Your task to perform on an android device: What is the recent news? Image 0: 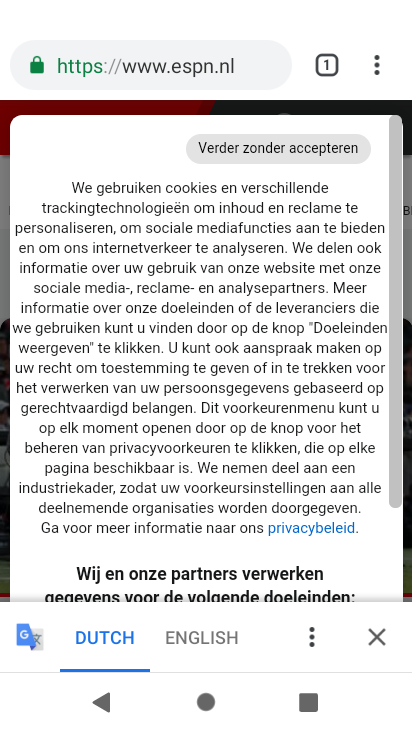
Step 0: drag from (158, 639) to (244, 147)
Your task to perform on an android device: What is the recent news? Image 1: 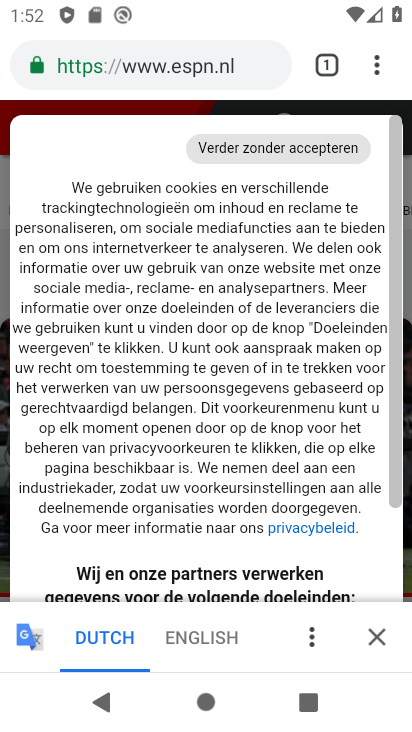
Step 1: press home button
Your task to perform on an android device: What is the recent news? Image 2: 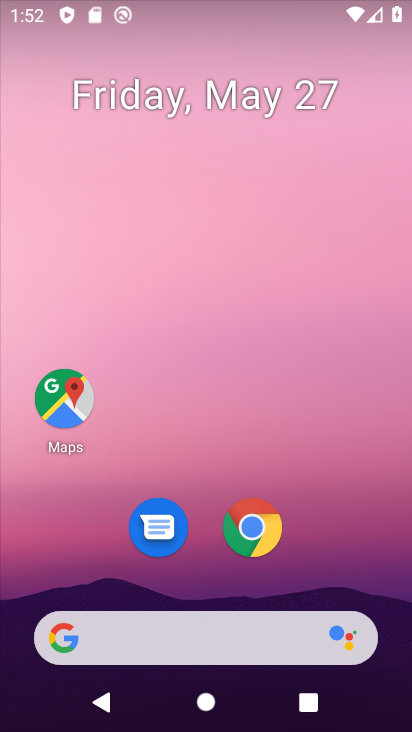
Step 2: drag from (208, 583) to (239, 219)
Your task to perform on an android device: What is the recent news? Image 3: 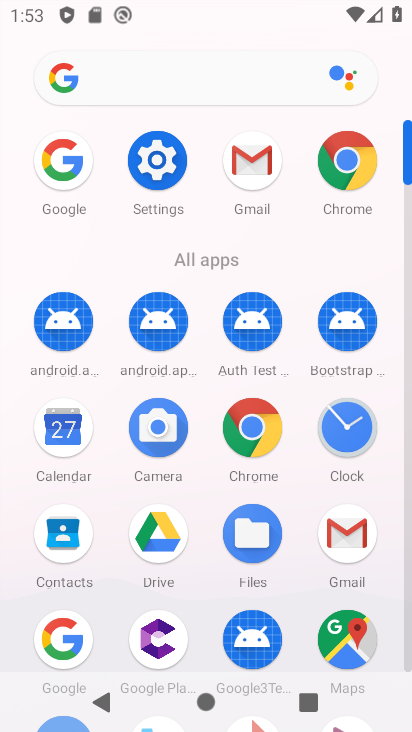
Step 3: click (57, 632)
Your task to perform on an android device: What is the recent news? Image 4: 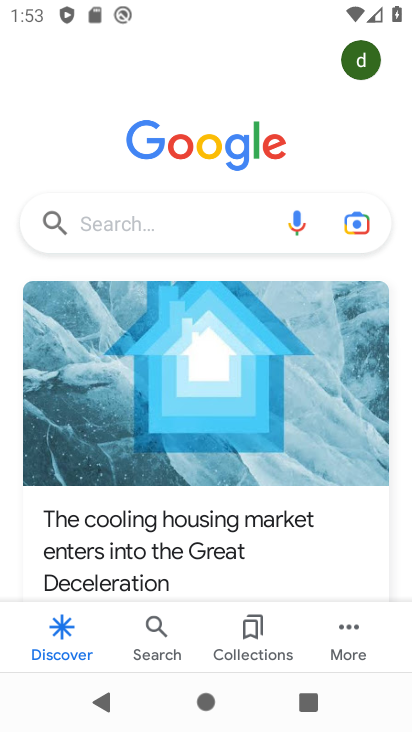
Step 4: click (173, 221)
Your task to perform on an android device: What is the recent news? Image 5: 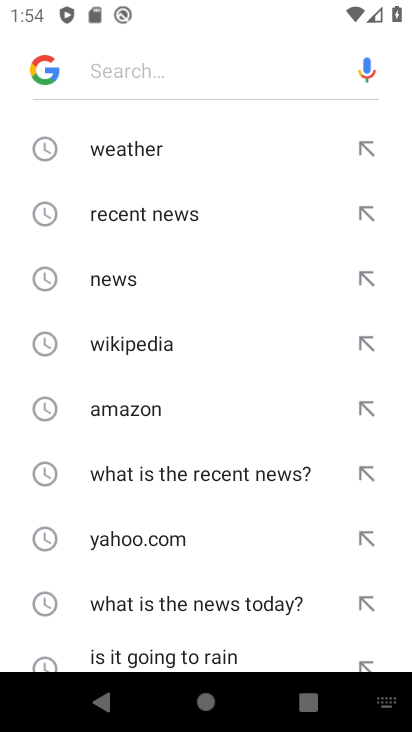
Step 5: click (126, 221)
Your task to perform on an android device: What is the recent news? Image 6: 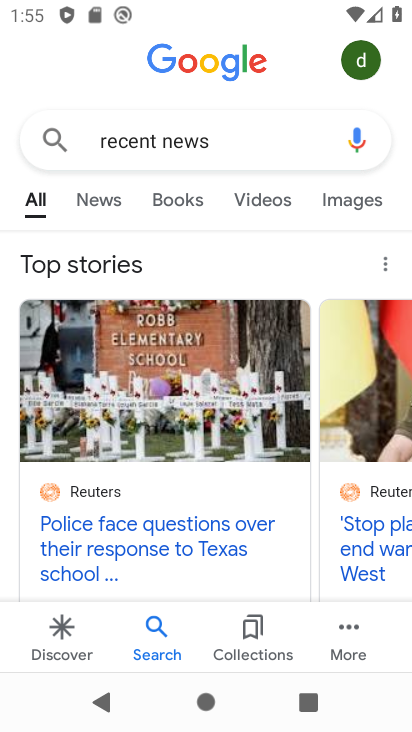
Step 6: task complete